Your task to perform on an android device: Play the last video I watched on Youtube Image 0: 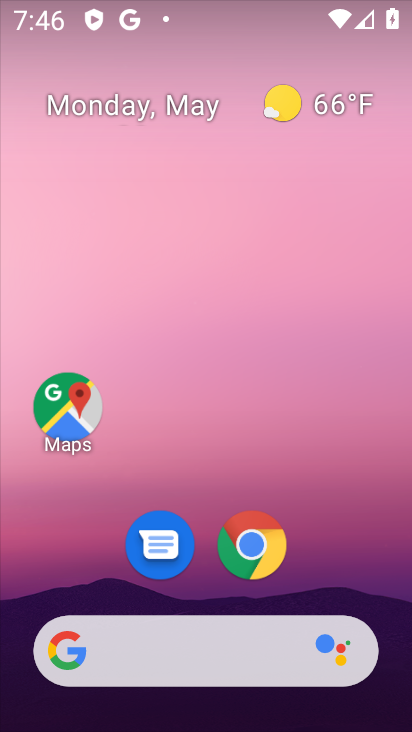
Step 0: drag from (256, 639) to (133, 42)
Your task to perform on an android device: Play the last video I watched on Youtube Image 1: 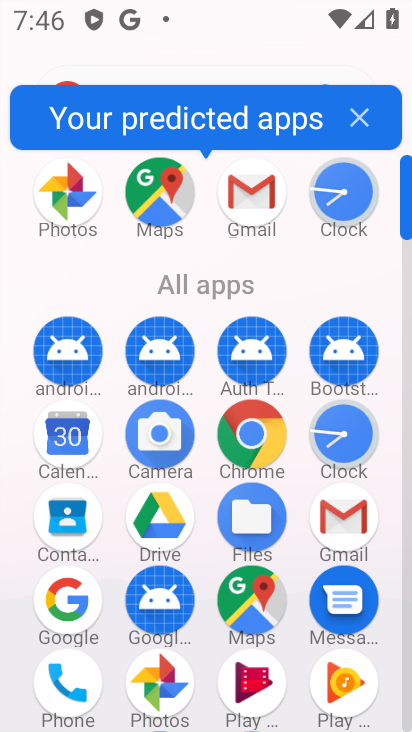
Step 1: drag from (314, 654) to (258, 34)
Your task to perform on an android device: Play the last video I watched on Youtube Image 2: 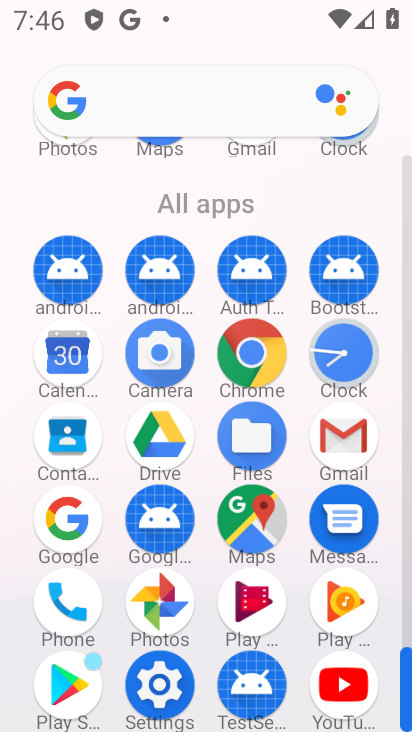
Step 2: click (341, 689)
Your task to perform on an android device: Play the last video I watched on Youtube Image 3: 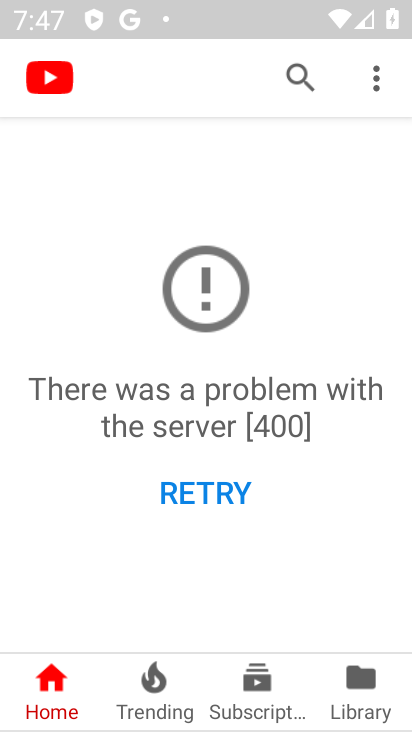
Step 3: click (365, 701)
Your task to perform on an android device: Play the last video I watched on Youtube Image 4: 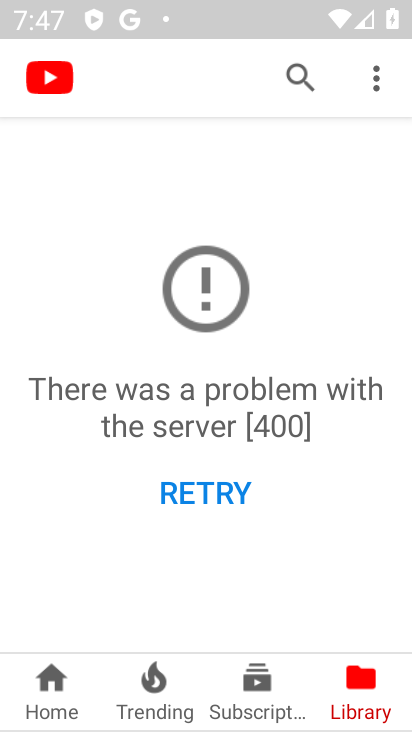
Step 4: task complete